Your task to perform on an android device: toggle improve location accuracy Image 0: 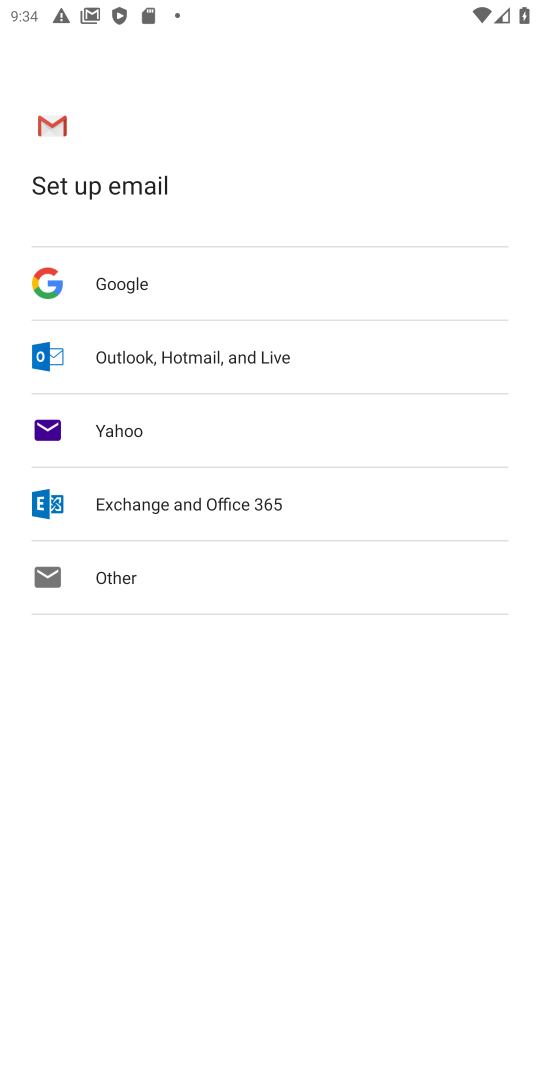
Step 0: press home button
Your task to perform on an android device: toggle improve location accuracy Image 1: 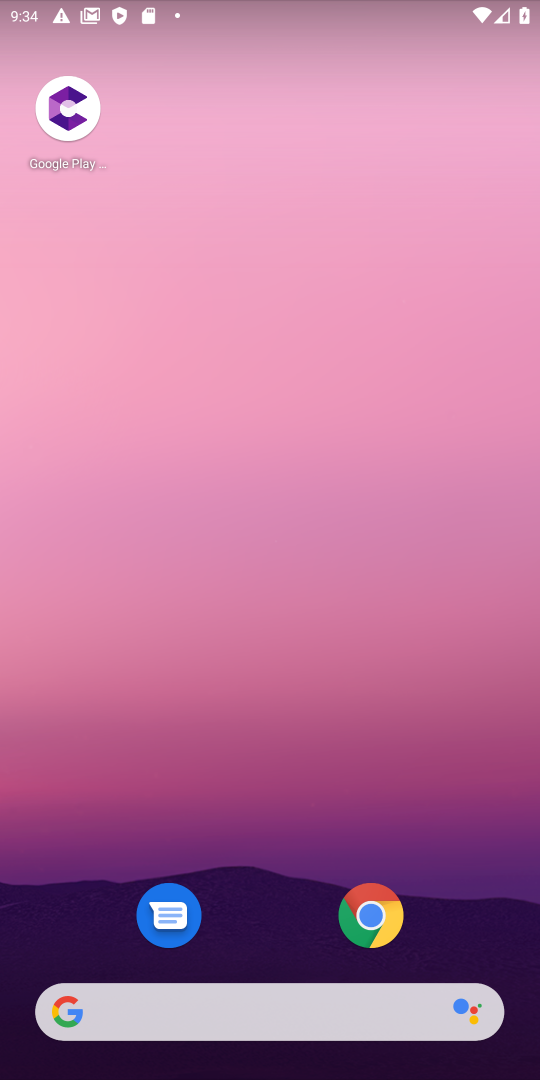
Step 1: drag from (307, 889) to (348, 48)
Your task to perform on an android device: toggle improve location accuracy Image 2: 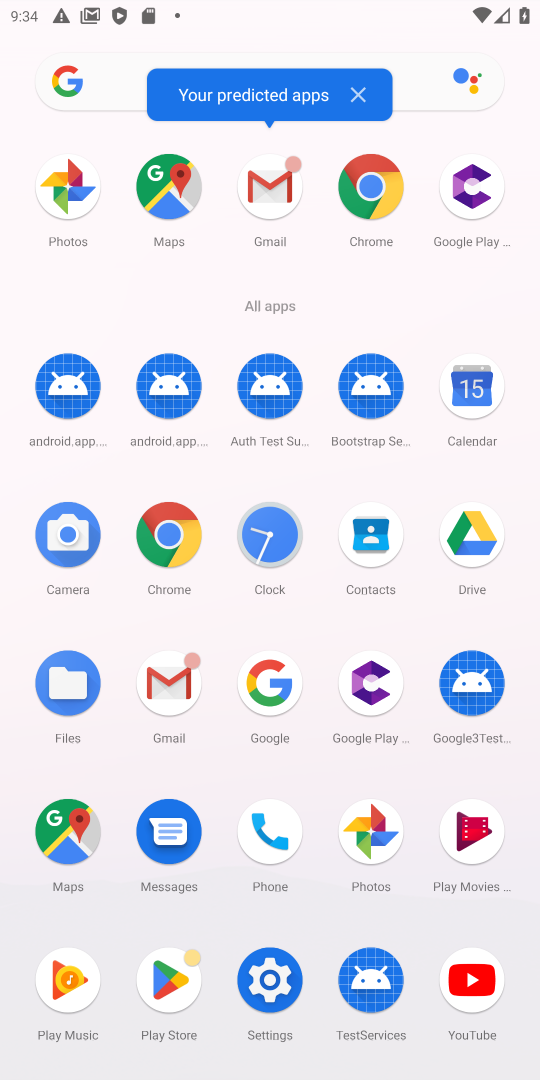
Step 2: click (280, 977)
Your task to perform on an android device: toggle improve location accuracy Image 3: 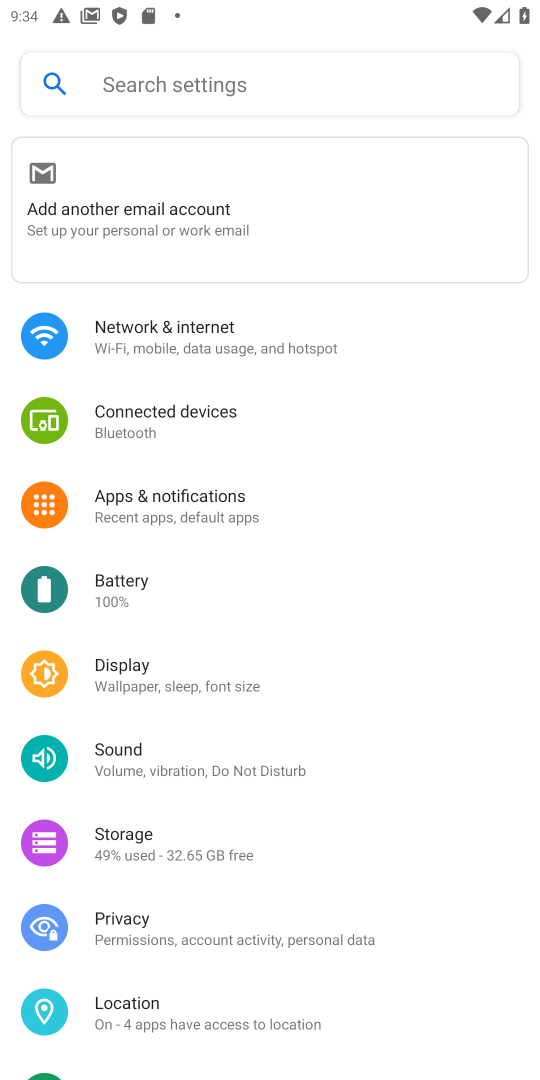
Step 3: click (121, 992)
Your task to perform on an android device: toggle improve location accuracy Image 4: 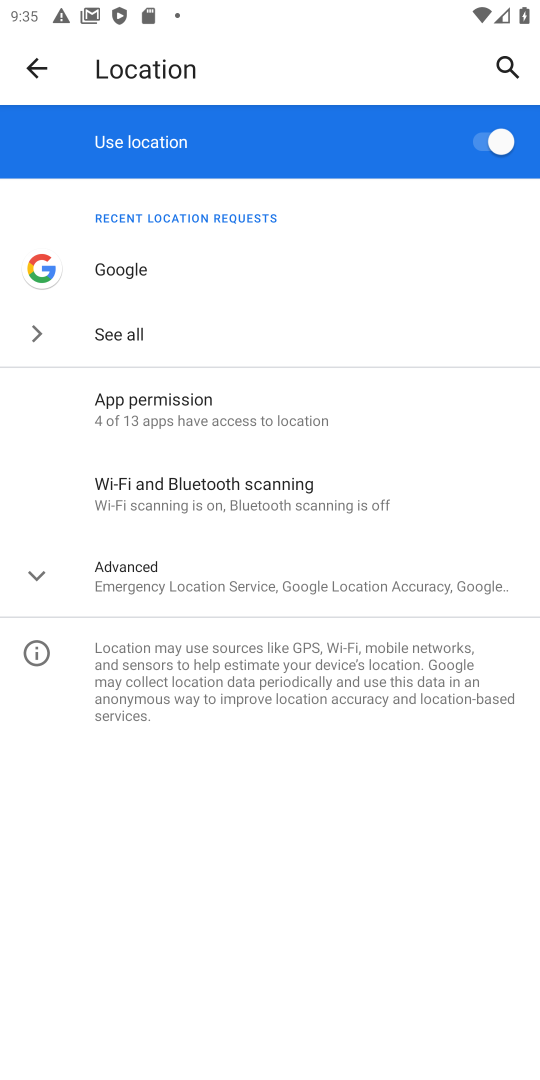
Step 4: click (36, 578)
Your task to perform on an android device: toggle improve location accuracy Image 5: 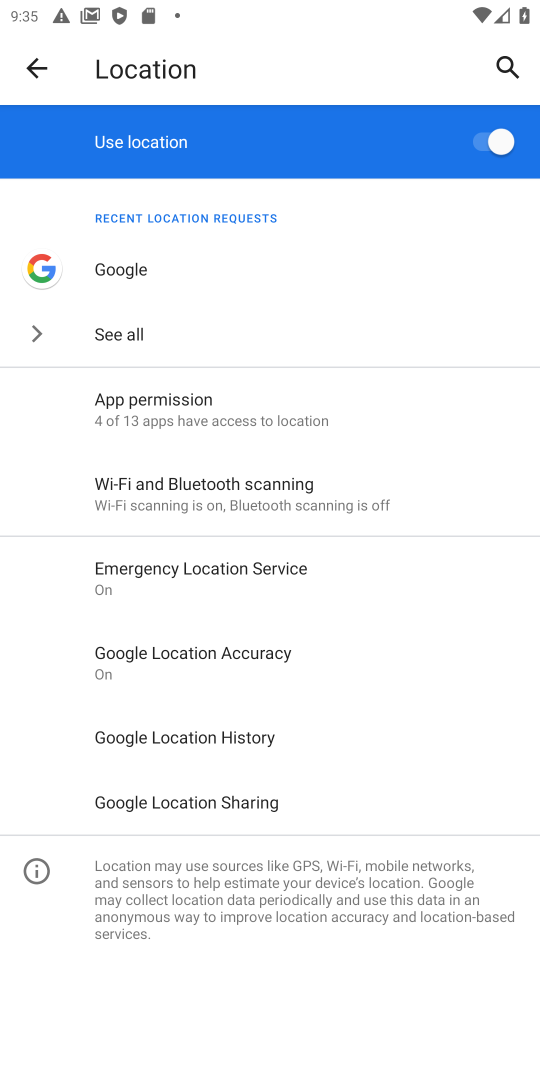
Step 5: click (229, 678)
Your task to perform on an android device: toggle improve location accuracy Image 6: 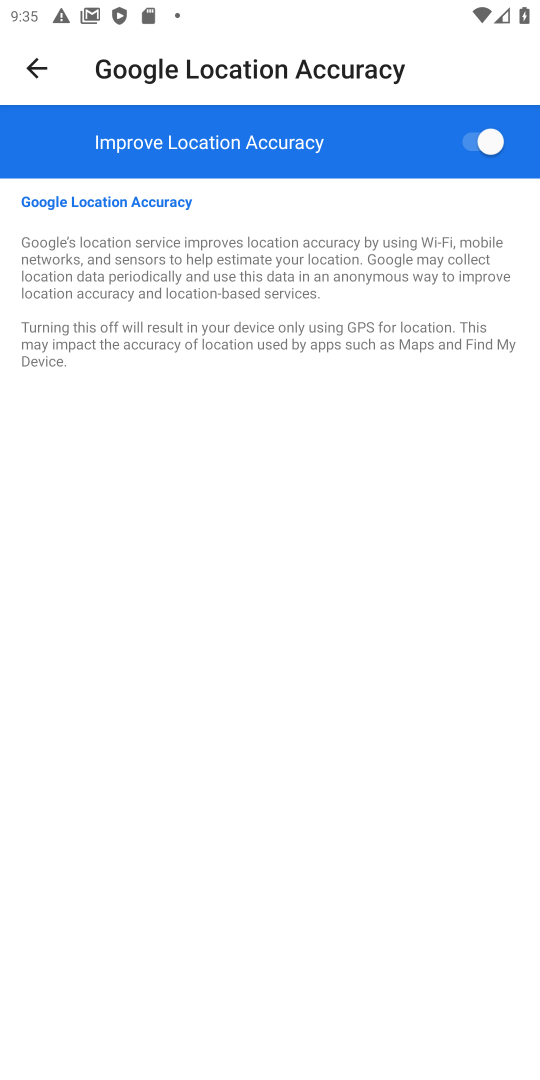
Step 6: click (488, 162)
Your task to perform on an android device: toggle improve location accuracy Image 7: 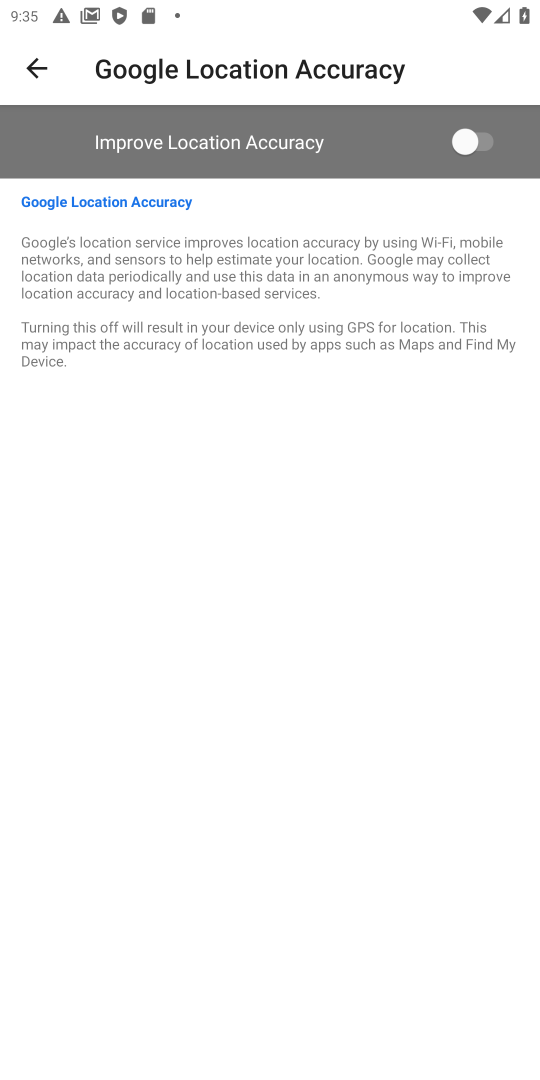
Step 7: task complete